Your task to perform on an android device: Open Google Maps and go to "Timeline" Image 0: 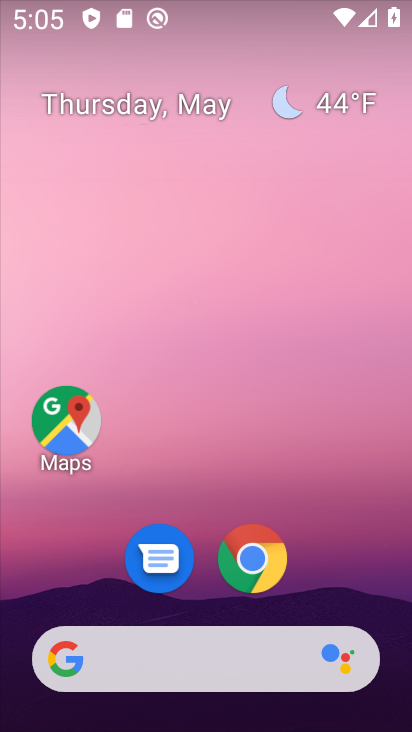
Step 0: drag from (365, 559) to (263, 26)
Your task to perform on an android device: Open Google Maps and go to "Timeline" Image 1: 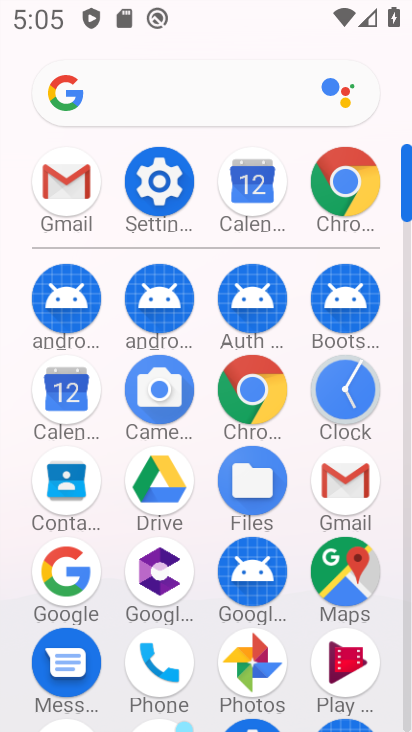
Step 1: drag from (15, 533) to (11, 262)
Your task to perform on an android device: Open Google Maps and go to "Timeline" Image 2: 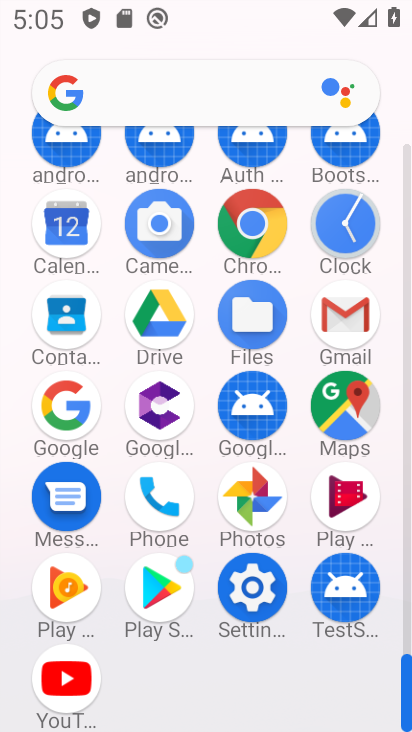
Step 2: click (339, 396)
Your task to perform on an android device: Open Google Maps and go to "Timeline" Image 3: 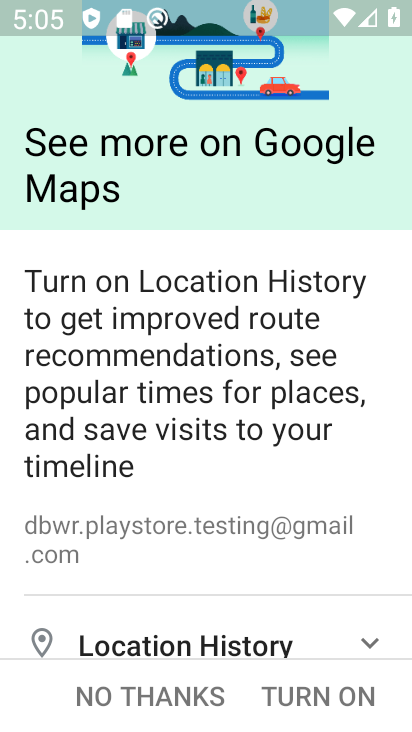
Step 3: click (312, 693)
Your task to perform on an android device: Open Google Maps and go to "Timeline" Image 4: 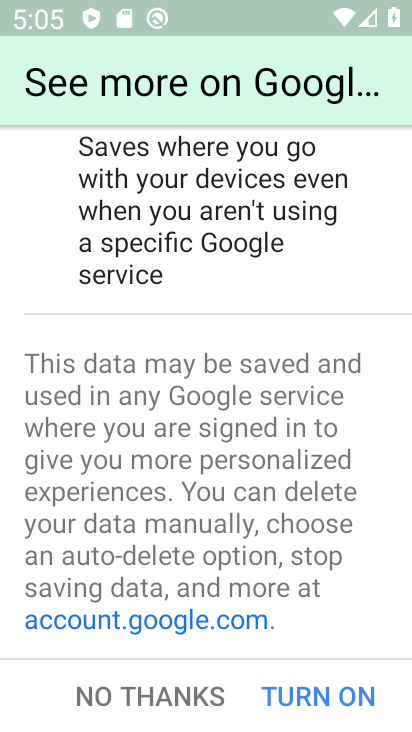
Step 4: click (312, 693)
Your task to perform on an android device: Open Google Maps and go to "Timeline" Image 5: 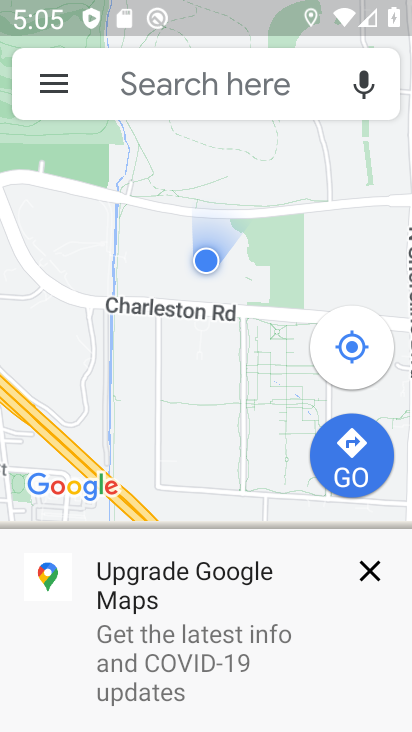
Step 5: click (289, 87)
Your task to perform on an android device: Open Google Maps and go to "Timeline" Image 6: 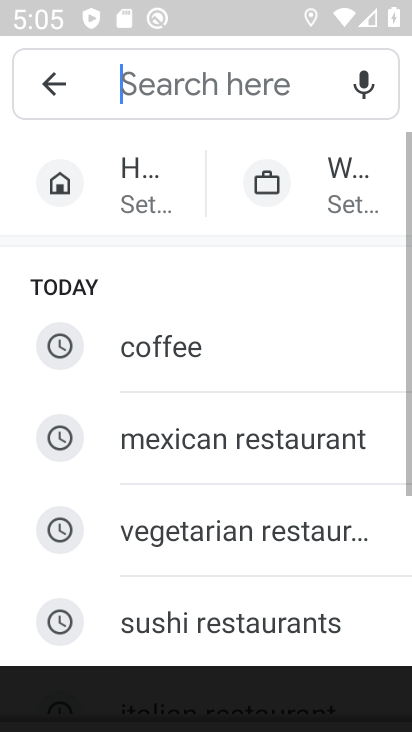
Step 6: click (55, 81)
Your task to perform on an android device: Open Google Maps and go to "Timeline" Image 7: 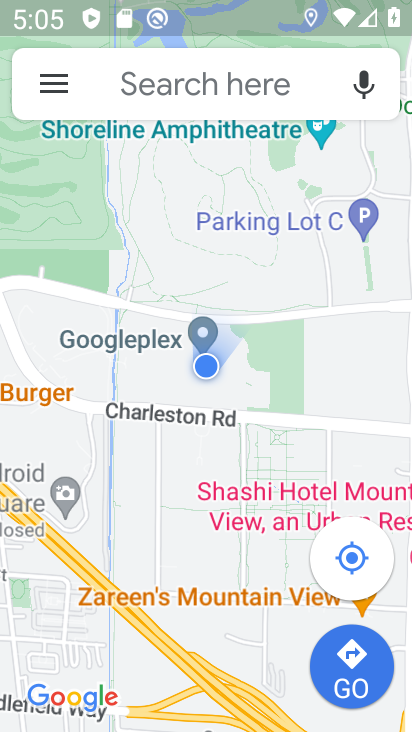
Step 7: click (55, 81)
Your task to perform on an android device: Open Google Maps and go to "Timeline" Image 8: 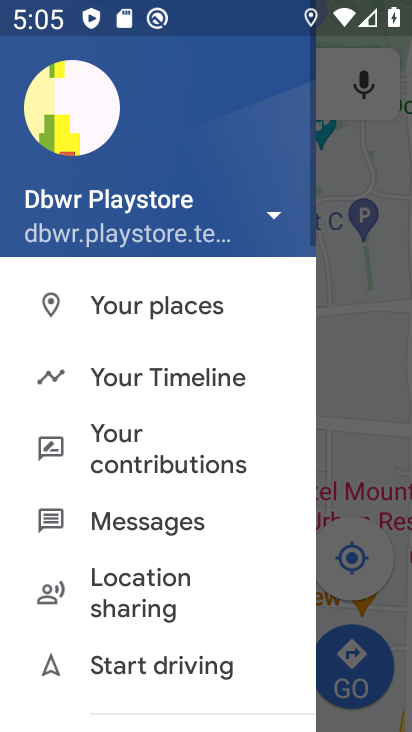
Step 8: click (167, 374)
Your task to perform on an android device: Open Google Maps and go to "Timeline" Image 9: 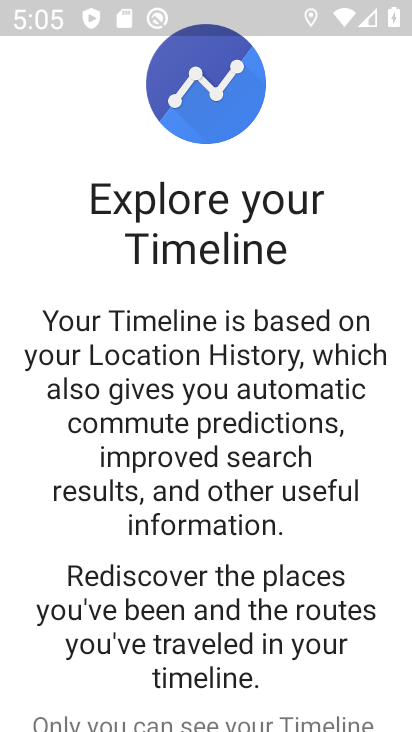
Step 9: drag from (313, 554) to (262, 140)
Your task to perform on an android device: Open Google Maps and go to "Timeline" Image 10: 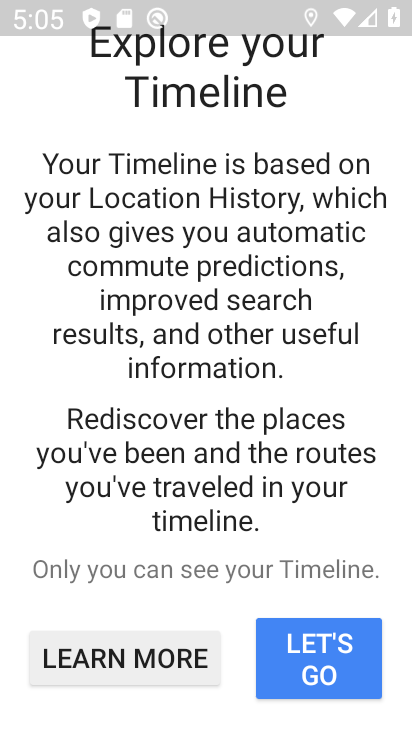
Step 10: click (293, 645)
Your task to perform on an android device: Open Google Maps and go to "Timeline" Image 11: 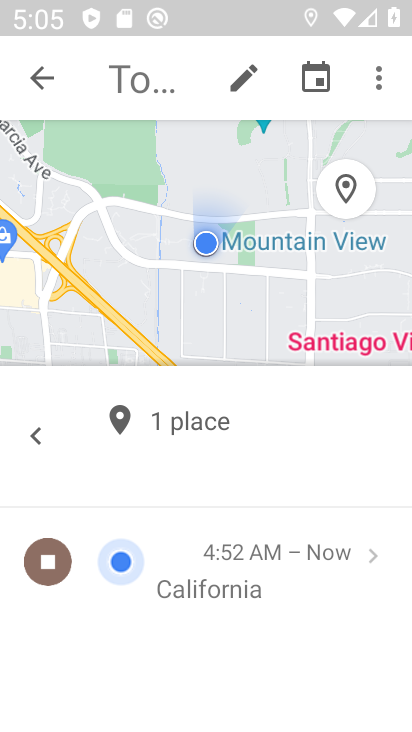
Step 11: task complete